Your task to perform on an android device: set an alarm Image 0: 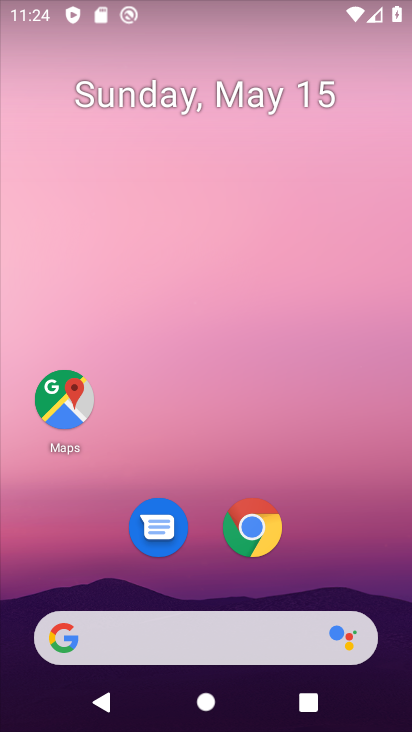
Step 0: drag from (391, 542) to (339, 194)
Your task to perform on an android device: set an alarm Image 1: 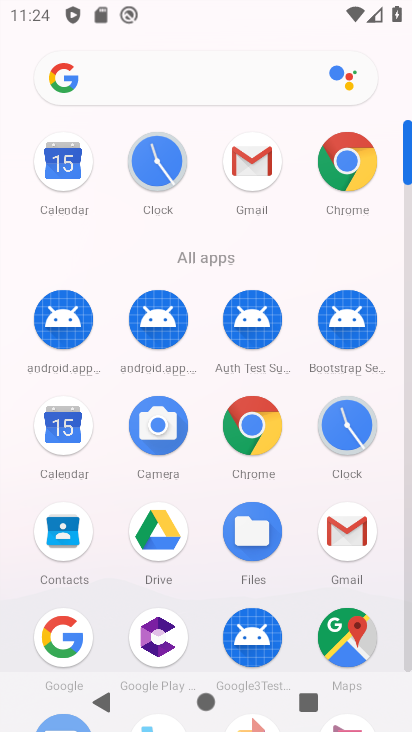
Step 1: click (363, 444)
Your task to perform on an android device: set an alarm Image 2: 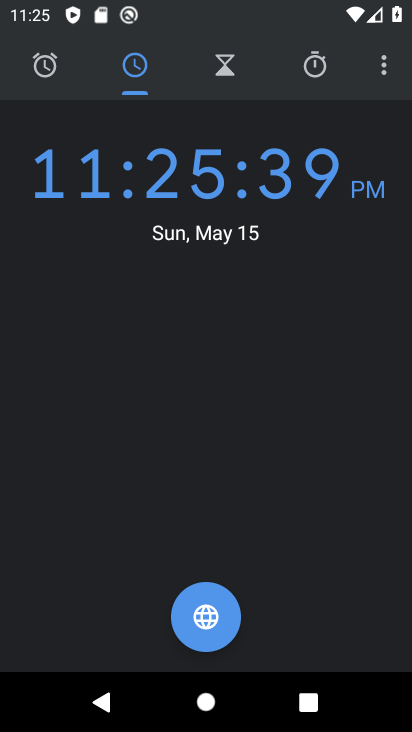
Step 2: click (58, 46)
Your task to perform on an android device: set an alarm Image 3: 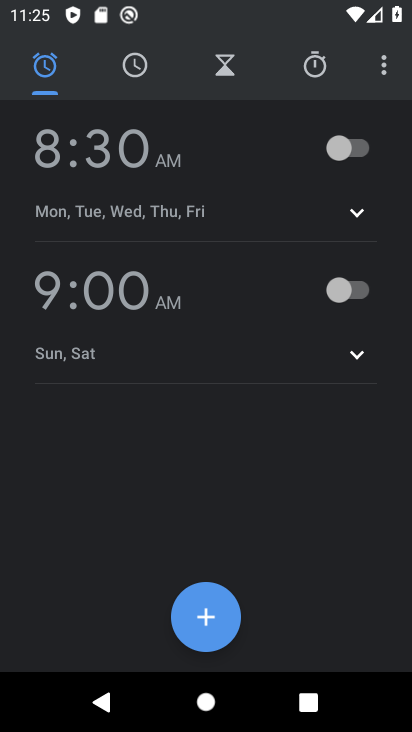
Step 3: click (335, 131)
Your task to perform on an android device: set an alarm Image 4: 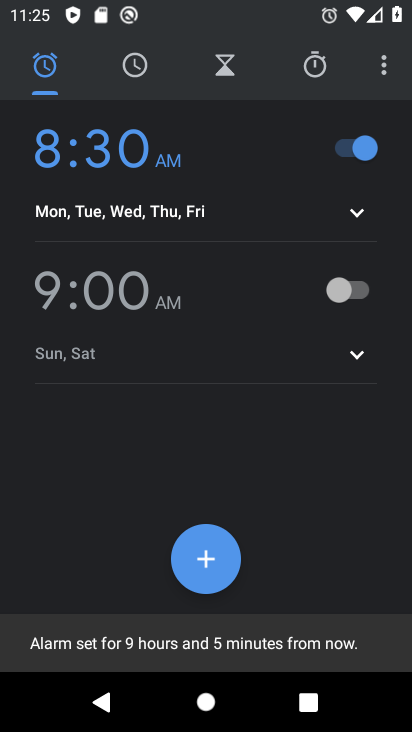
Step 4: task complete